Your task to perform on an android device: What's the weather today? Image 0: 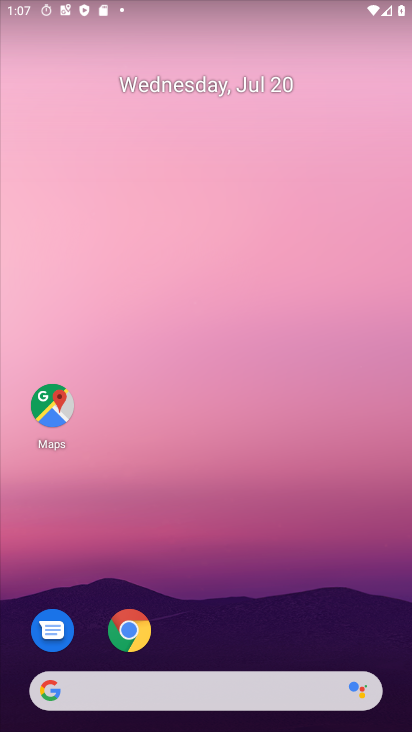
Step 0: click (209, 692)
Your task to perform on an android device: What's the weather today? Image 1: 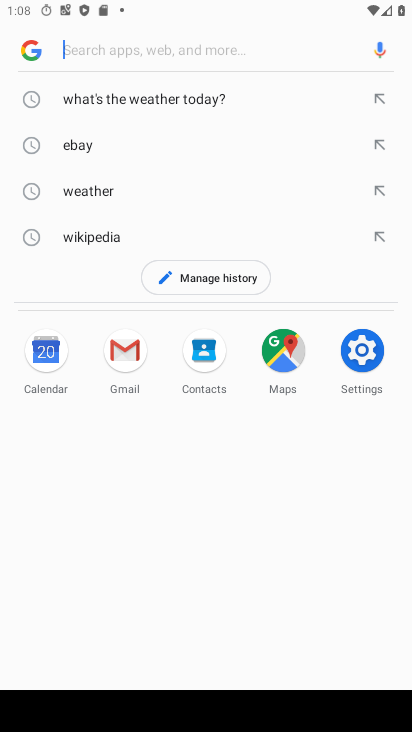
Step 1: type "what's the weather today?"
Your task to perform on an android device: What's the weather today? Image 2: 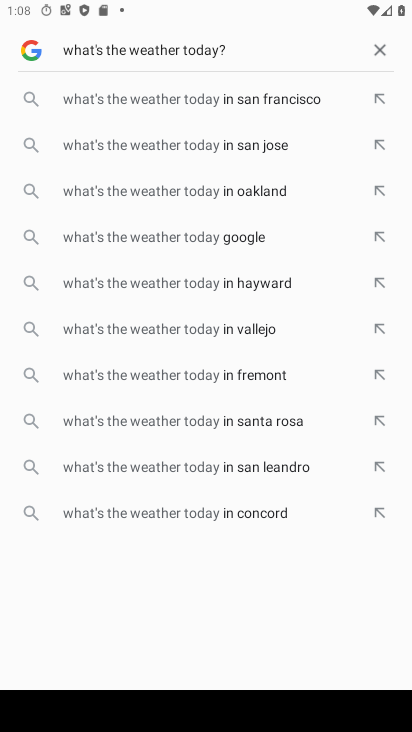
Step 2: click (164, 225)
Your task to perform on an android device: What's the weather today? Image 3: 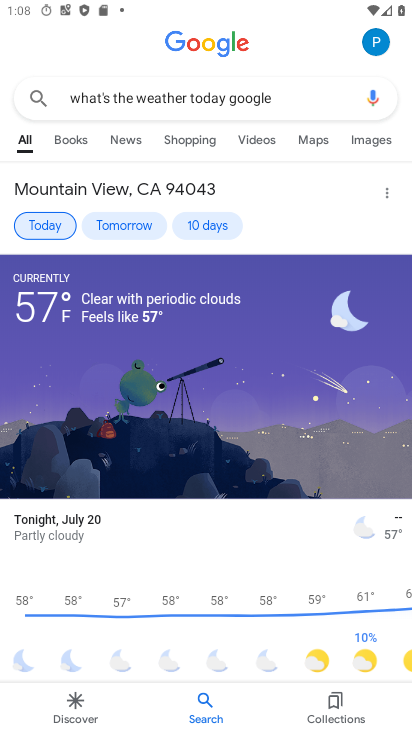
Step 3: task complete